Your task to perform on an android device: turn on wifi Image 0: 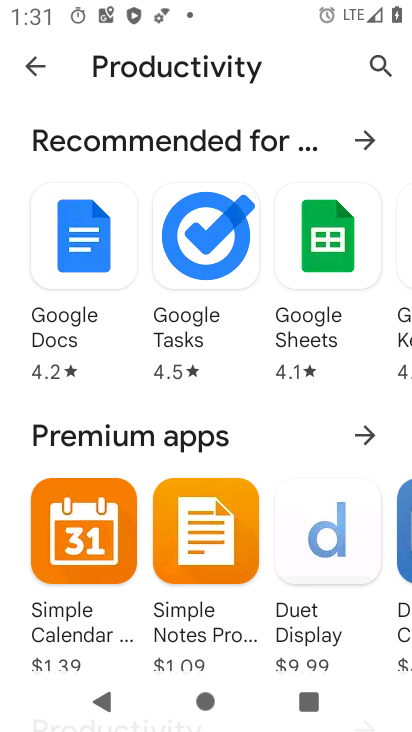
Step 0: press home button
Your task to perform on an android device: turn on wifi Image 1: 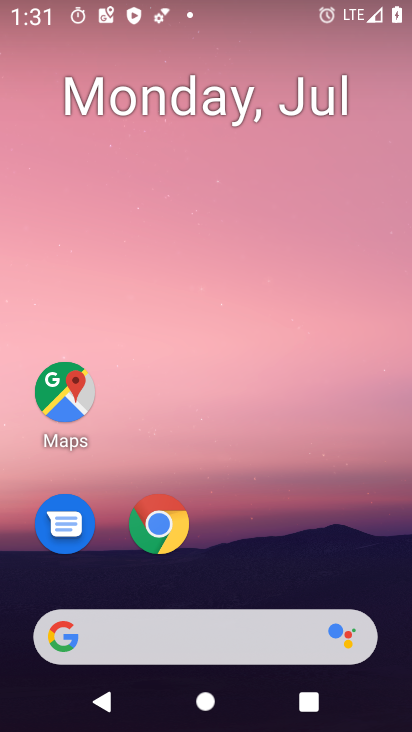
Step 1: drag from (296, 523) to (365, 65)
Your task to perform on an android device: turn on wifi Image 2: 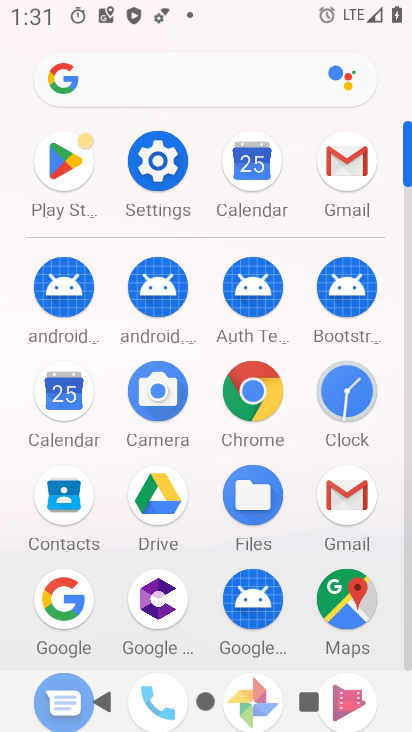
Step 2: click (159, 143)
Your task to perform on an android device: turn on wifi Image 3: 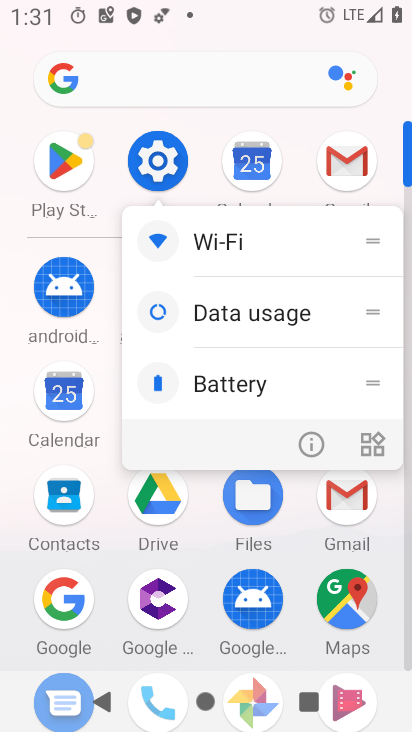
Step 3: click (166, 151)
Your task to perform on an android device: turn on wifi Image 4: 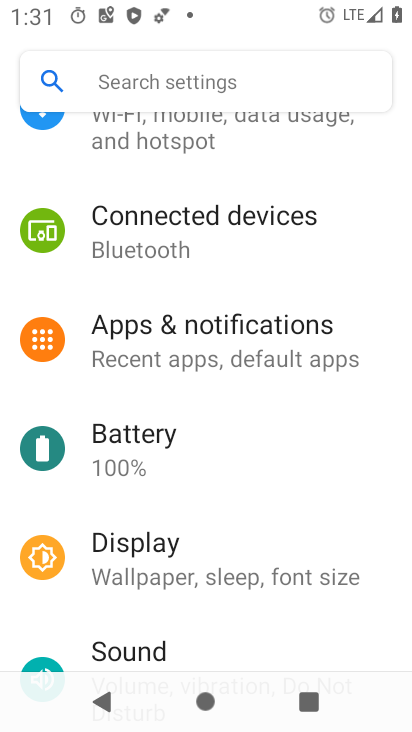
Step 4: drag from (215, 190) to (216, 330)
Your task to perform on an android device: turn on wifi Image 5: 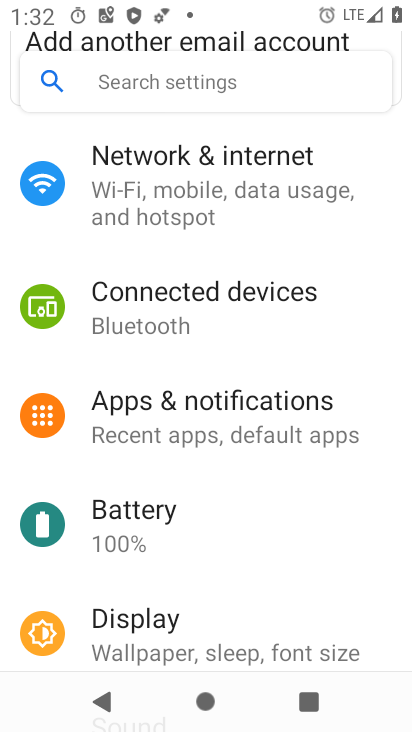
Step 5: click (165, 180)
Your task to perform on an android device: turn on wifi Image 6: 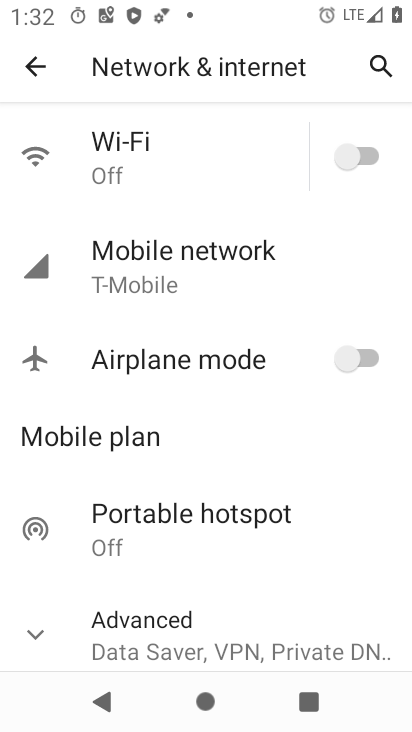
Step 6: click (367, 169)
Your task to perform on an android device: turn on wifi Image 7: 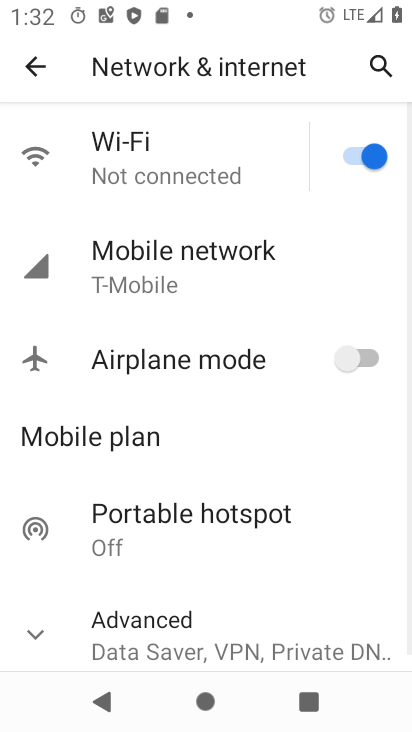
Step 7: task complete